Your task to perform on an android device: turn off smart reply in the gmail app Image 0: 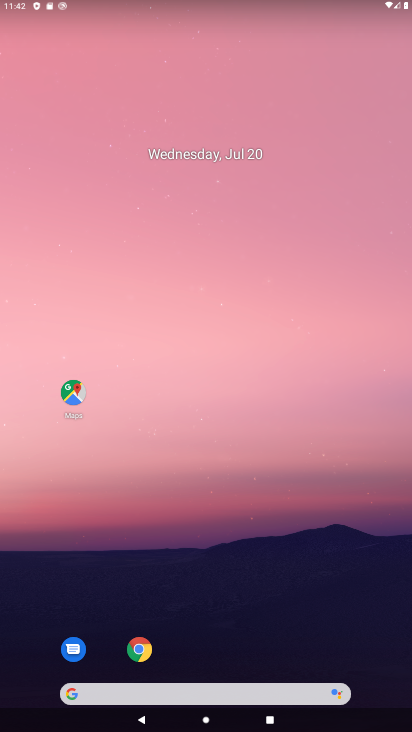
Step 0: drag from (245, 634) to (275, 161)
Your task to perform on an android device: turn off smart reply in the gmail app Image 1: 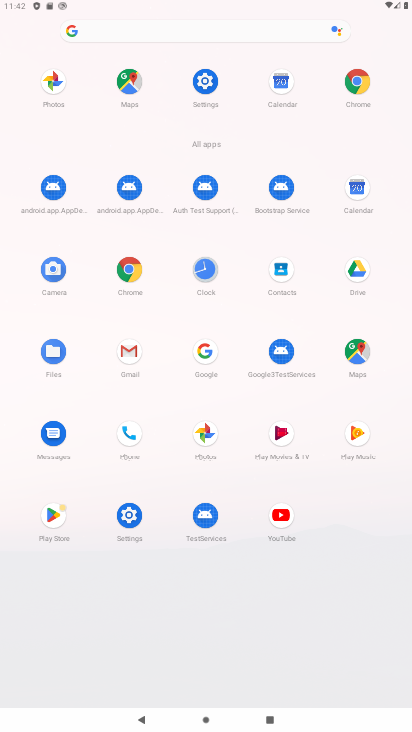
Step 1: click (136, 357)
Your task to perform on an android device: turn off smart reply in the gmail app Image 2: 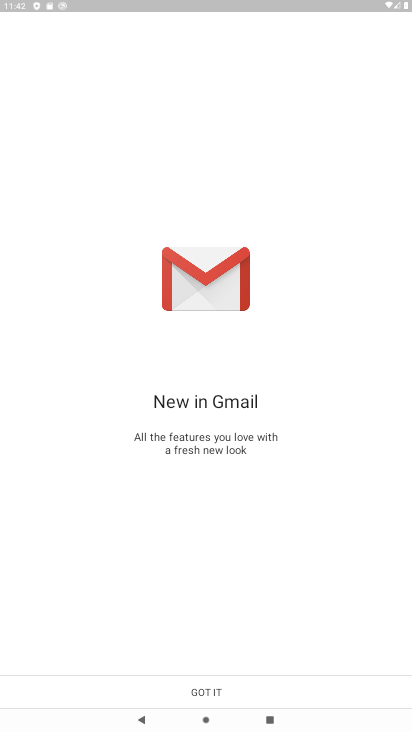
Step 2: click (181, 690)
Your task to perform on an android device: turn off smart reply in the gmail app Image 3: 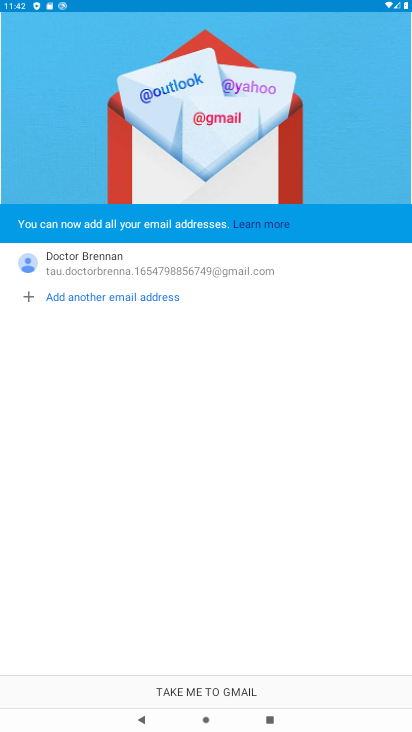
Step 3: click (181, 690)
Your task to perform on an android device: turn off smart reply in the gmail app Image 4: 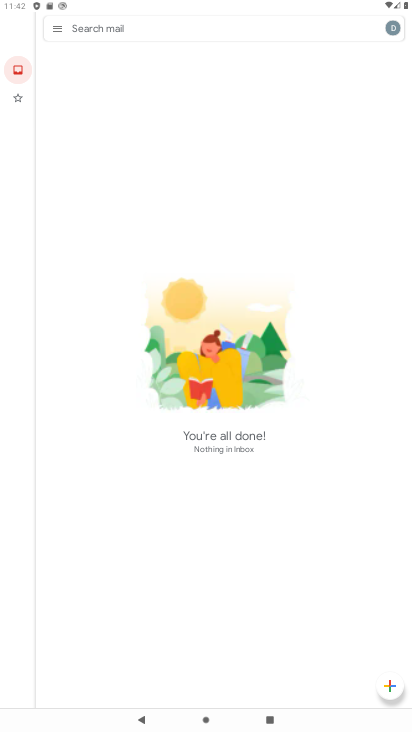
Step 4: click (57, 28)
Your task to perform on an android device: turn off smart reply in the gmail app Image 5: 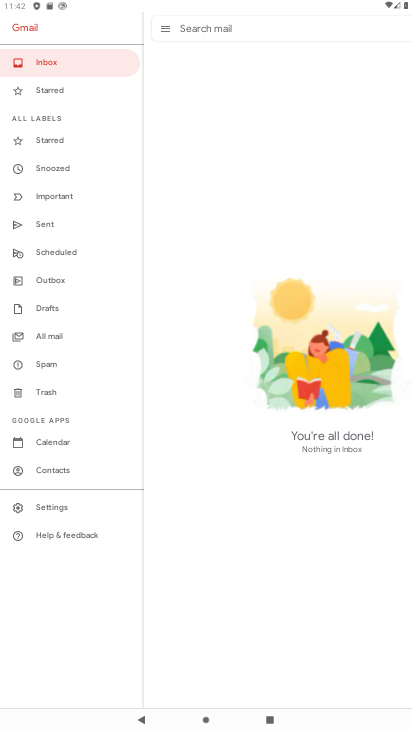
Step 5: click (24, 508)
Your task to perform on an android device: turn off smart reply in the gmail app Image 6: 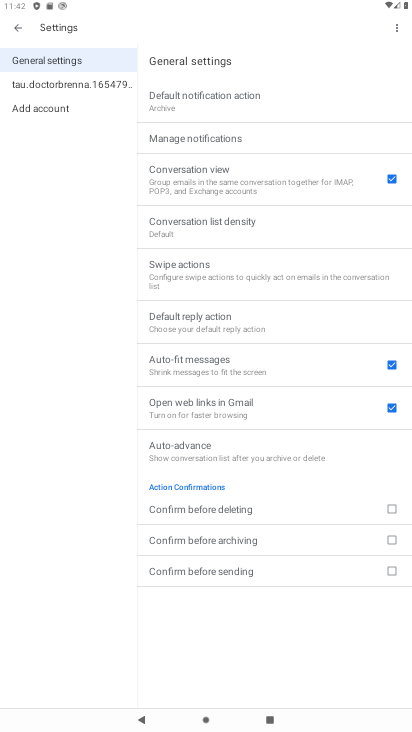
Step 6: click (51, 89)
Your task to perform on an android device: turn off smart reply in the gmail app Image 7: 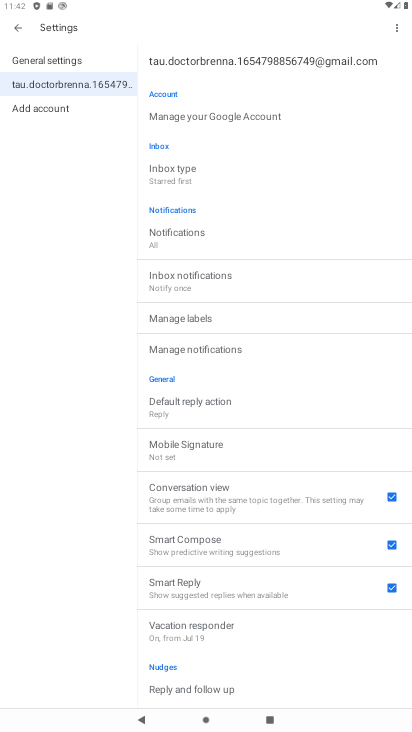
Step 7: click (194, 161)
Your task to perform on an android device: turn off smart reply in the gmail app Image 8: 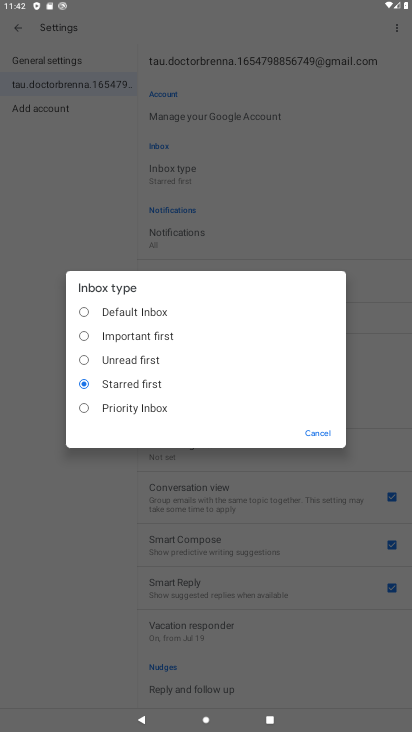
Step 8: click (2, 194)
Your task to perform on an android device: turn off smart reply in the gmail app Image 9: 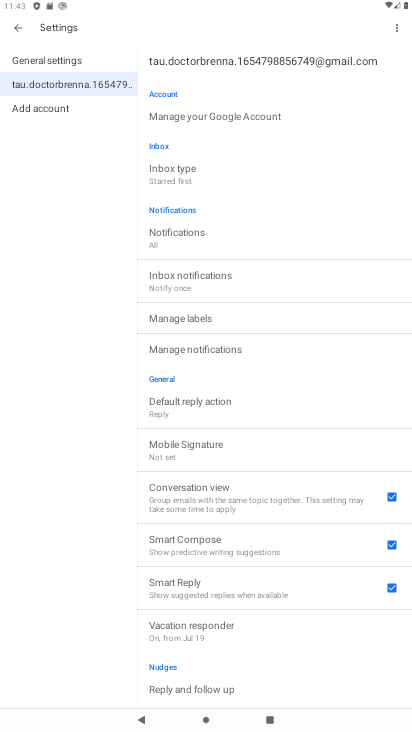
Step 9: click (213, 590)
Your task to perform on an android device: turn off smart reply in the gmail app Image 10: 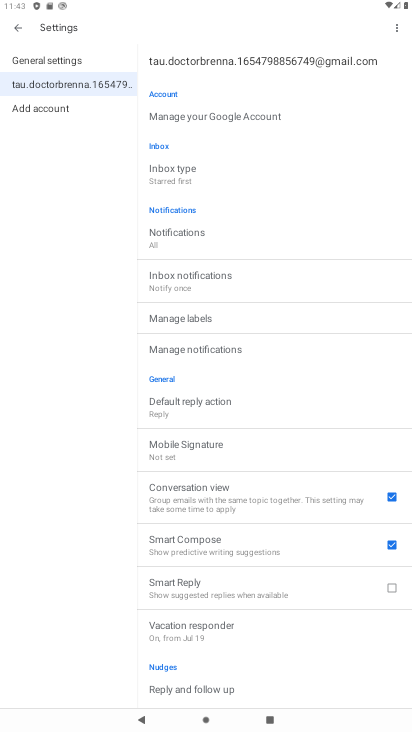
Step 10: task complete